Your task to perform on an android device: turn notification dots on Image 0: 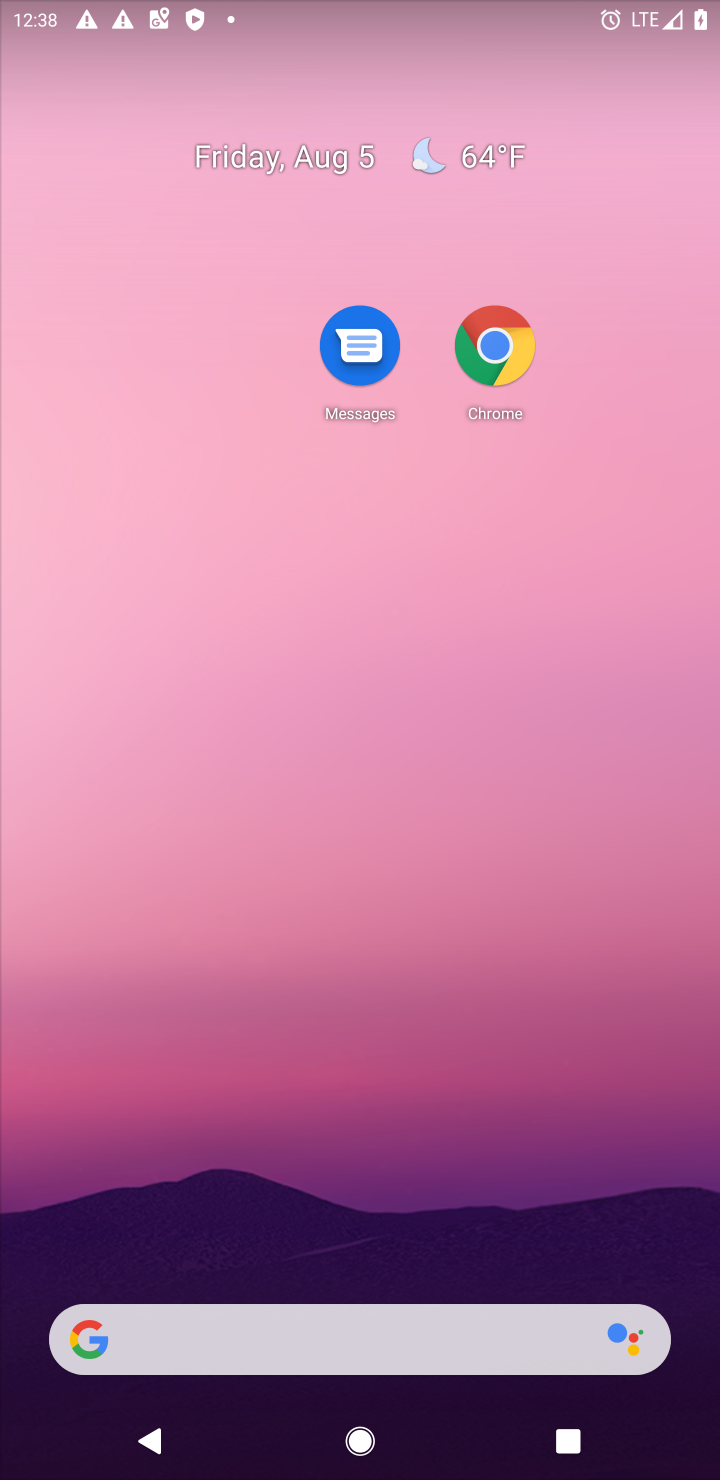
Step 0: drag from (484, 400) to (503, 221)
Your task to perform on an android device: turn notification dots on Image 1: 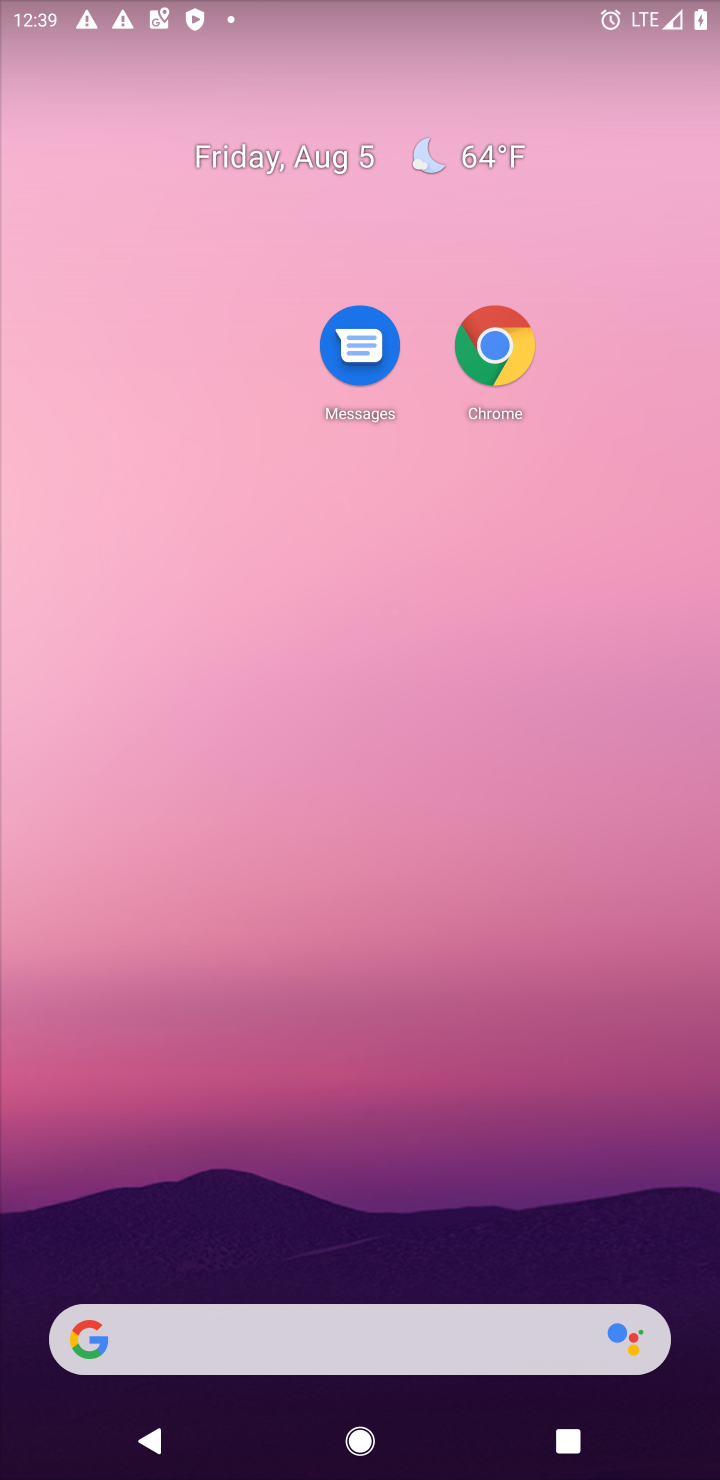
Step 1: drag from (351, 797) to (348, 42)
Your task to perform on an android device: turn notification dots on Image 2: 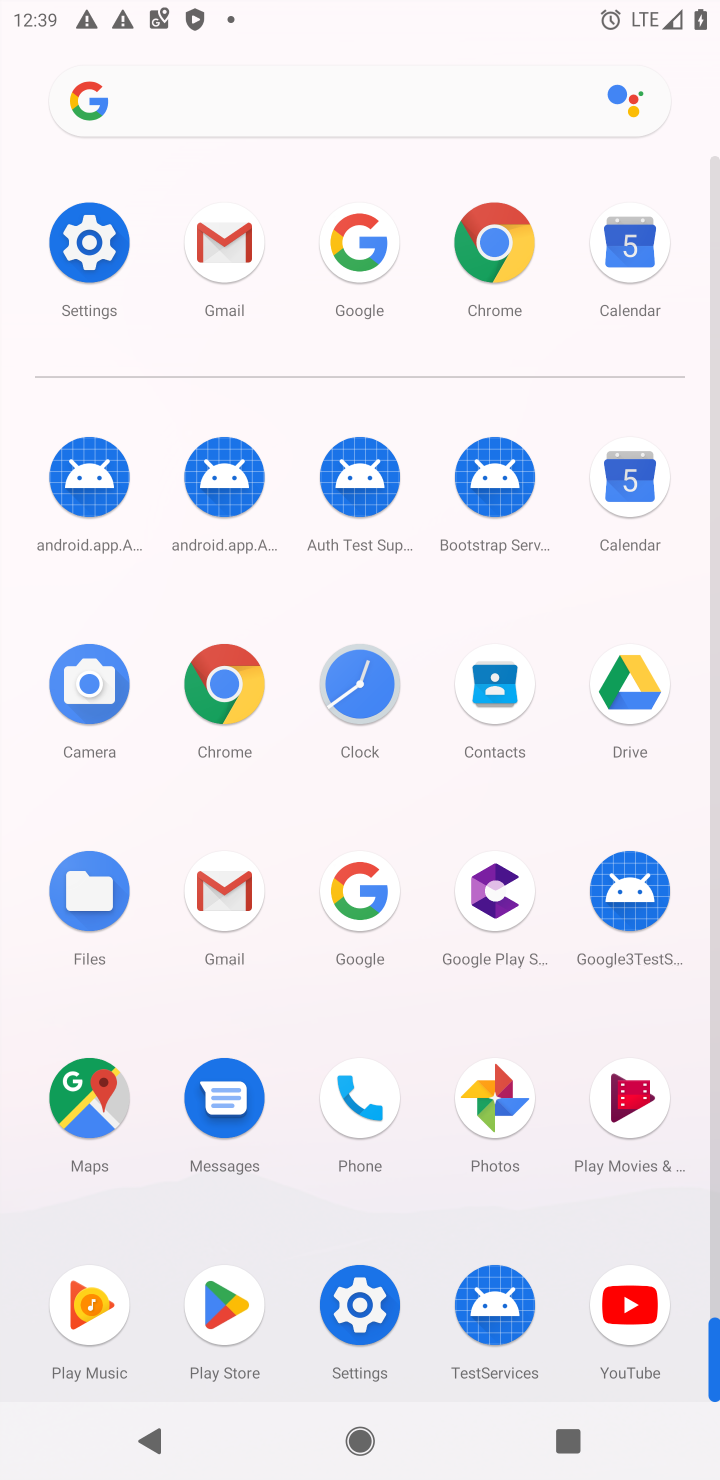
Step 2: click (82, 246)
Your task to perform on an android device: turn notification dots on Image 3: 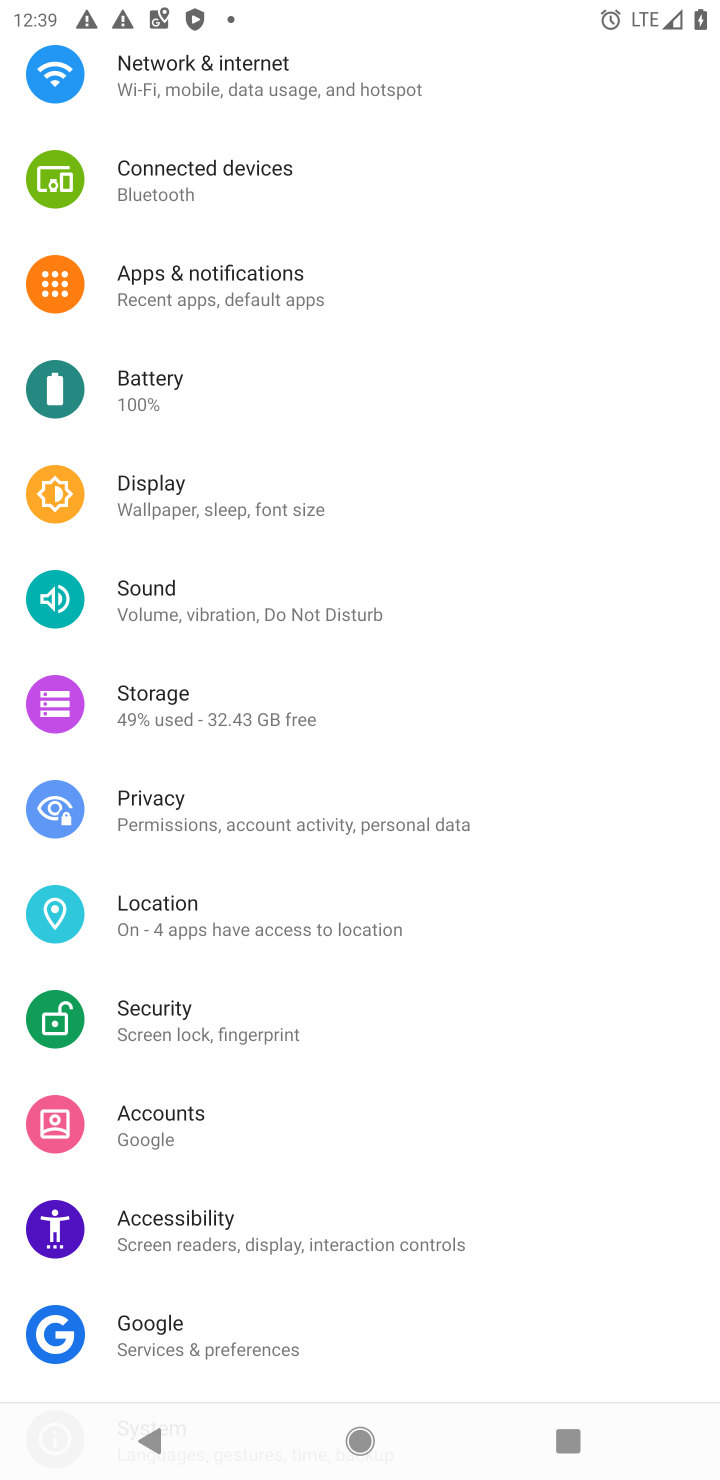
Step 3: click (228, 292)
Your task to perform on an android device: turn notification dots on Image 4: 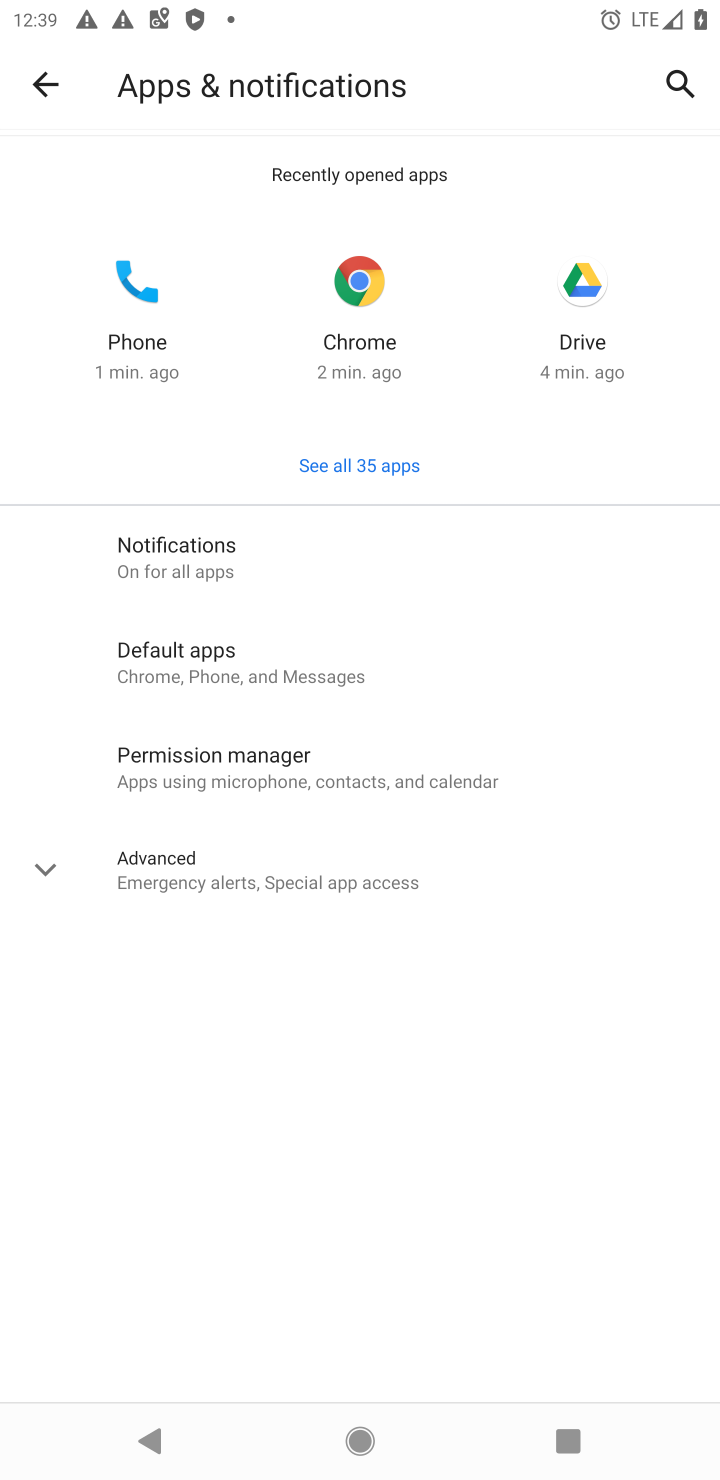
Step 4: click (201, 569)
Your task to perform on an android device: turn notification dots on Image 5: 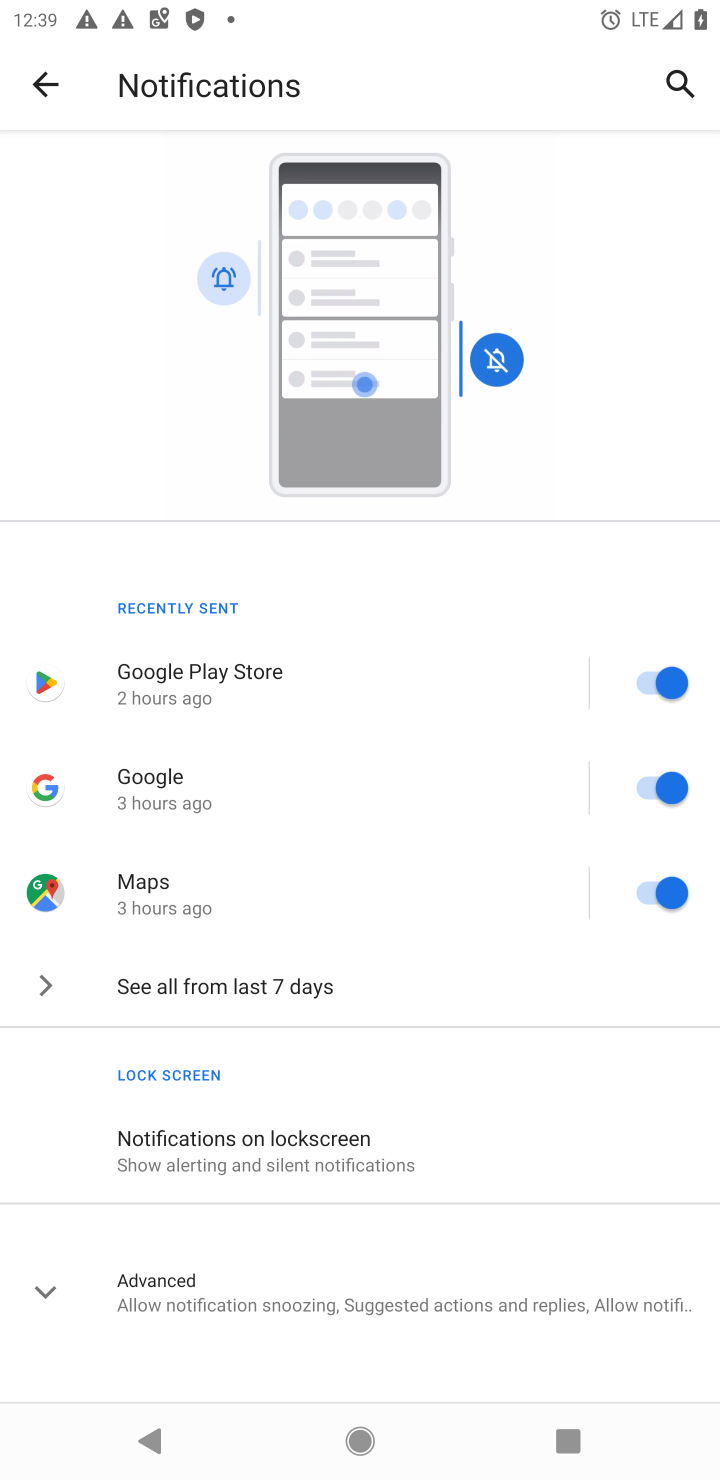
Step 5: drag from (361, 1298) to (493, 381)
Your task to perform on an android device: turn notification dots on Image 6: 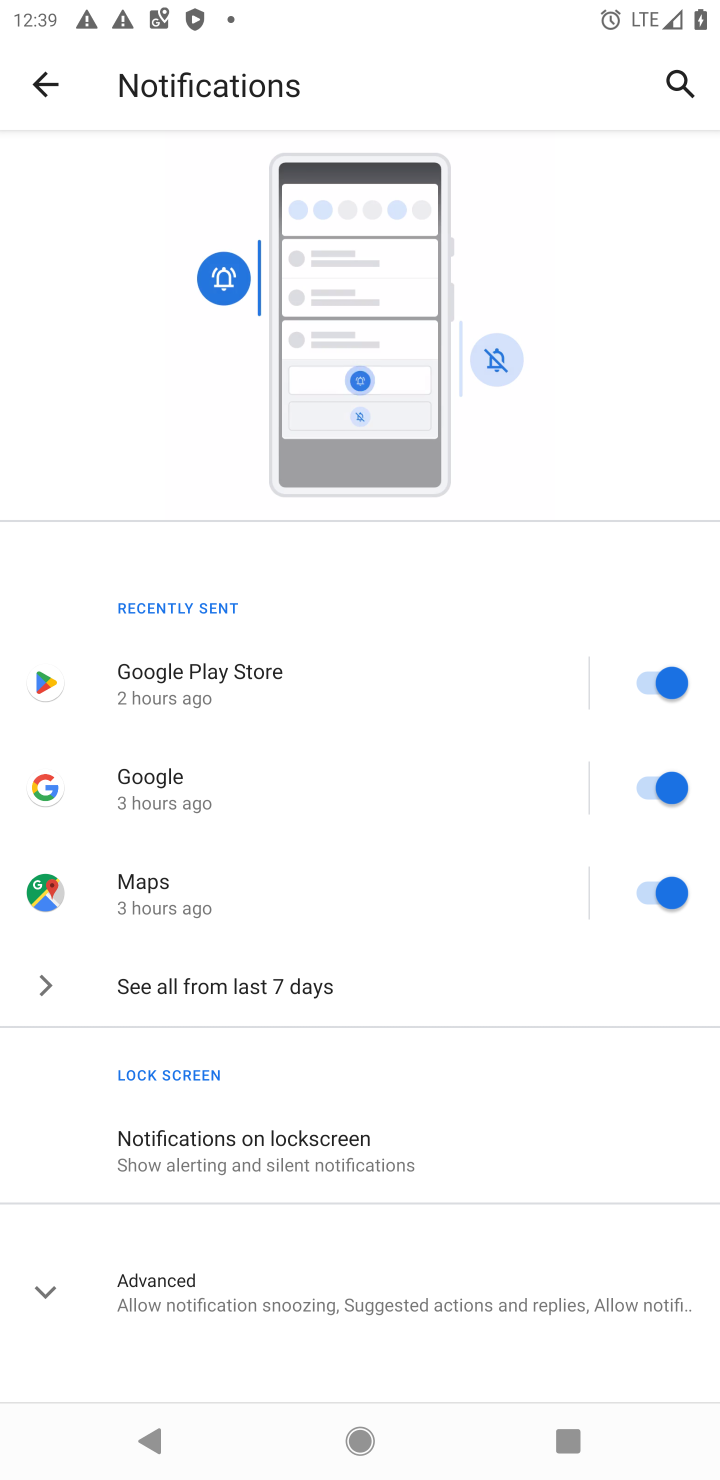
Step 6: click (155, 1292)
Your task to perform on an android device: turn notification dots on Image 7: 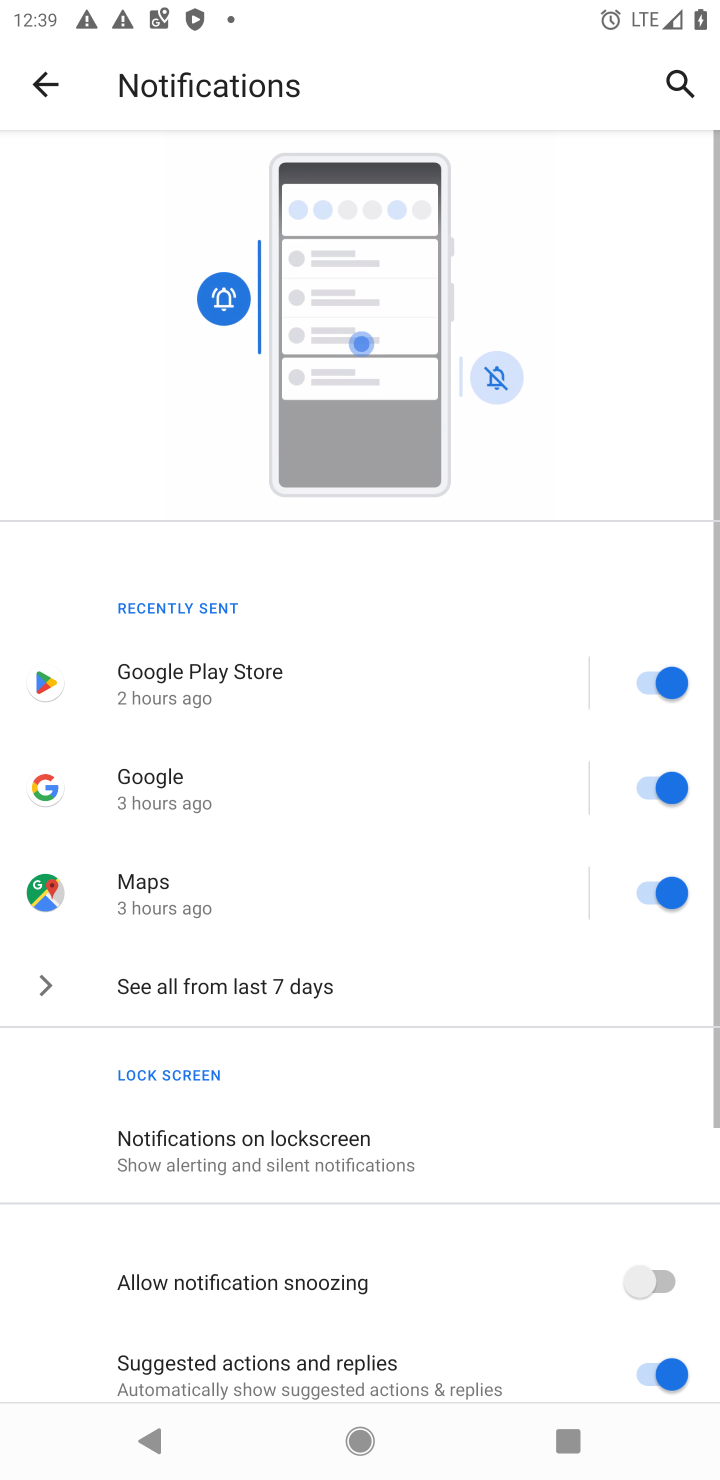
Step 7: click (367, 350)
Your task to perform on an android device: turn notification dots on Image 8: 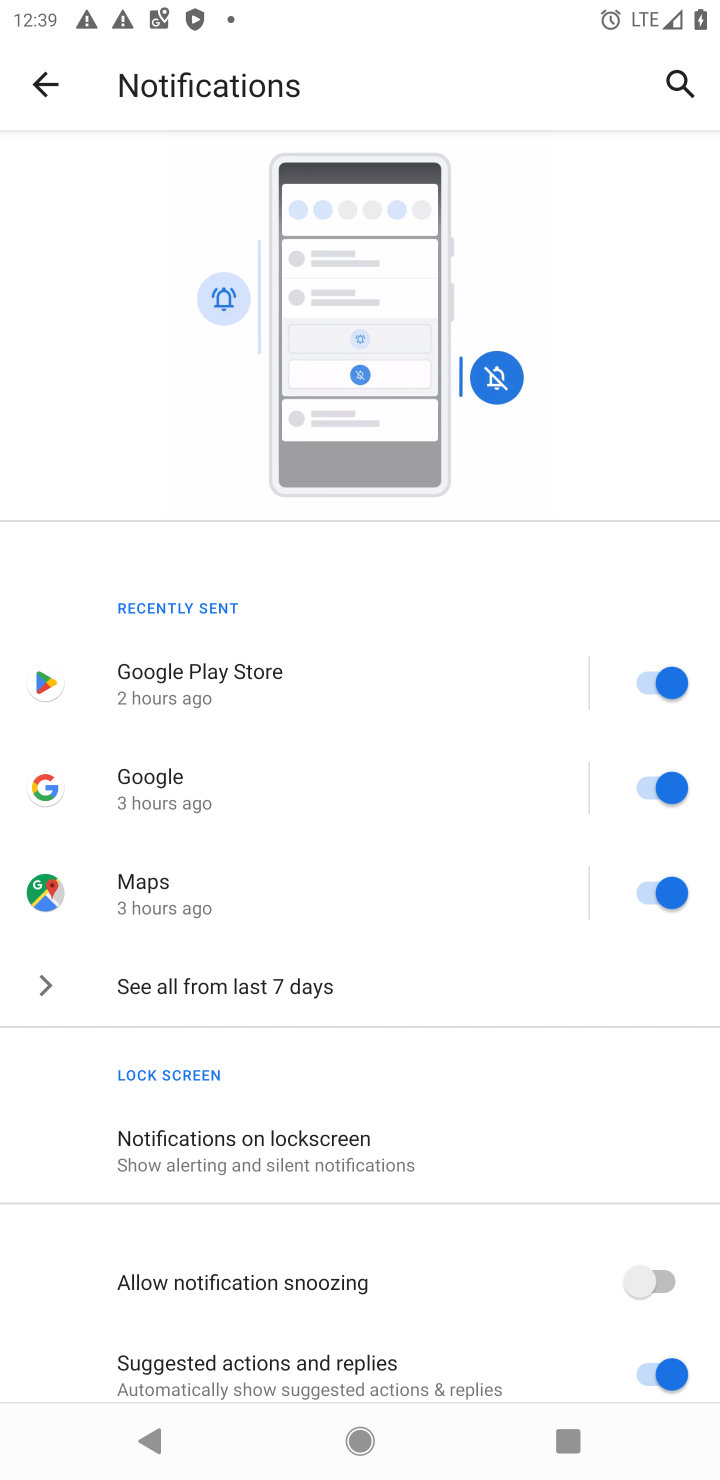
Step 8: drag from (221, 1254) to (155, 419)
Your task to perform on an android device: turn notification dots on Image 9: 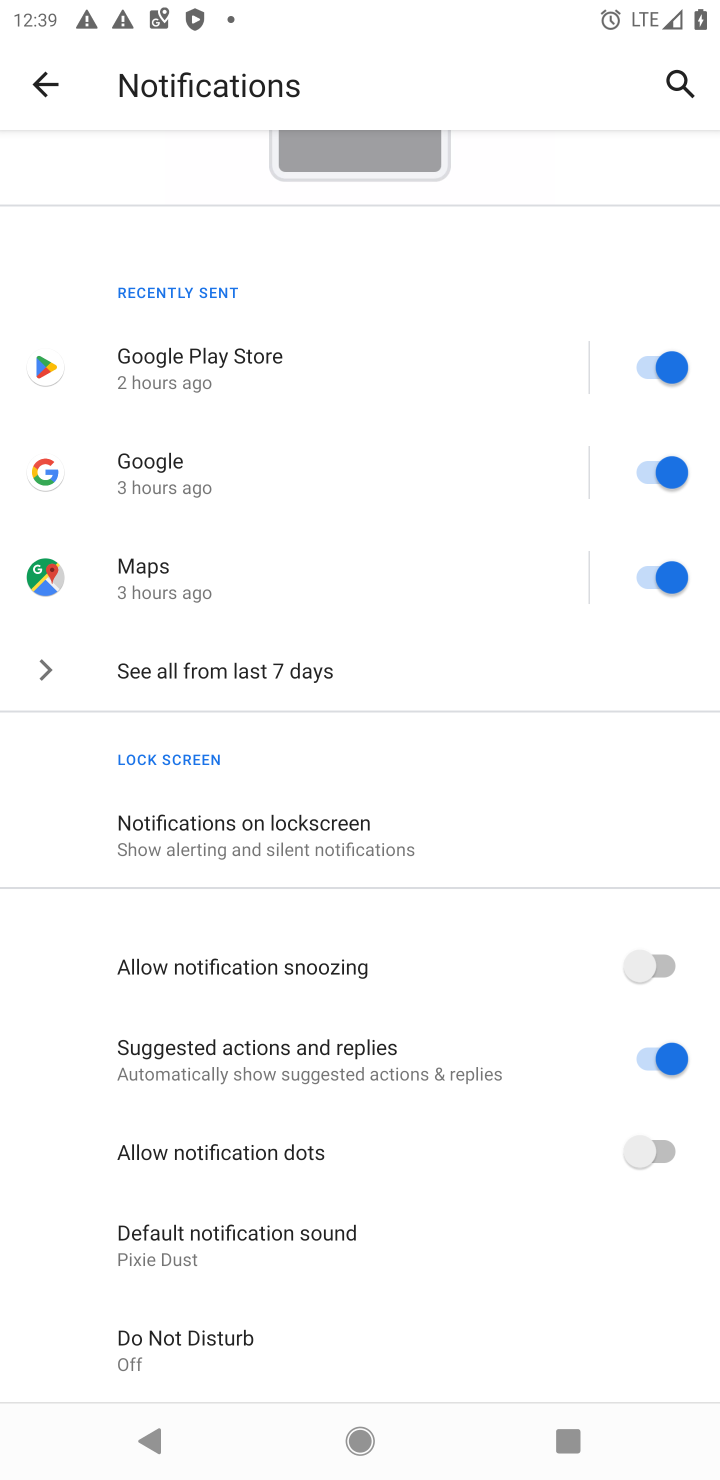
Step 9: click (639, 1152)
Your task to perform on an android device: turn notification dots on Image 10: 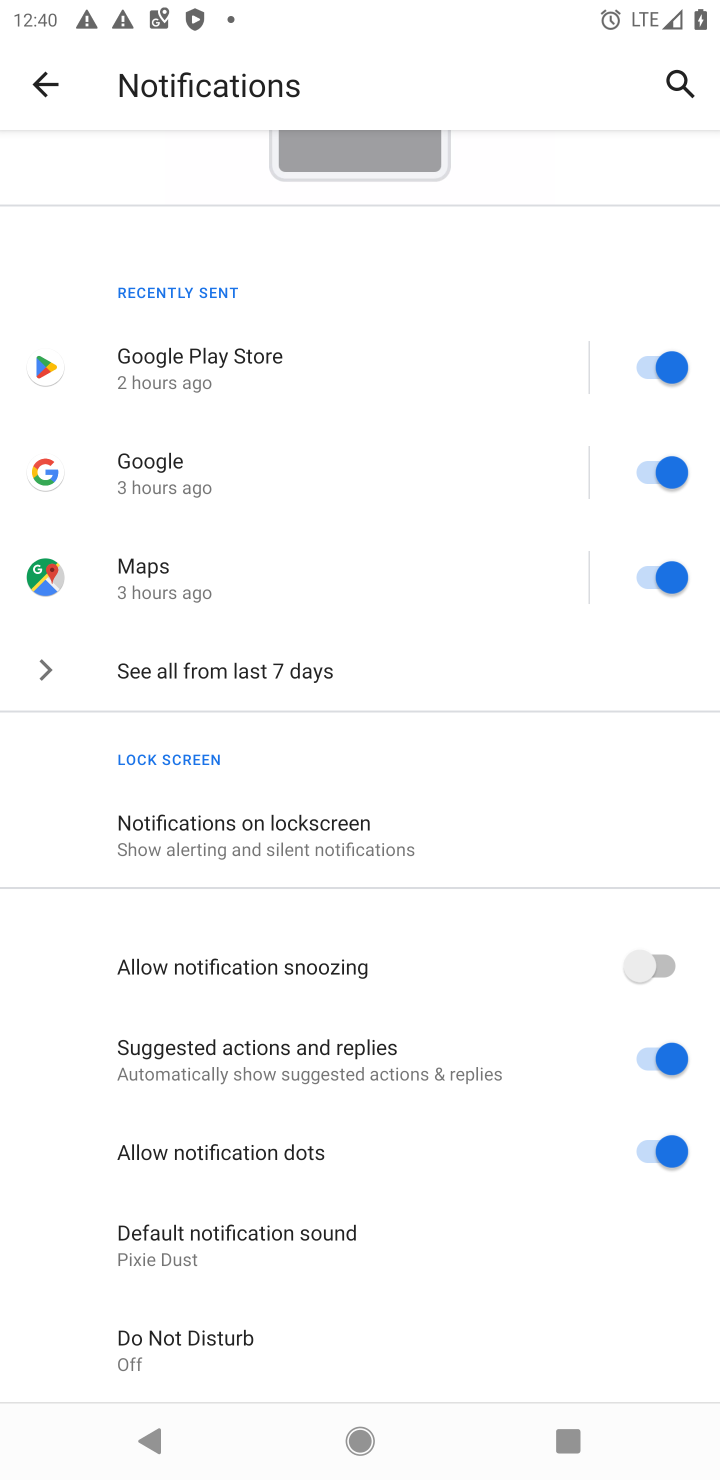
Step 10: task complete